Your task to perform on an android device: Search for vegetarian restaurants on Maps Image 0: 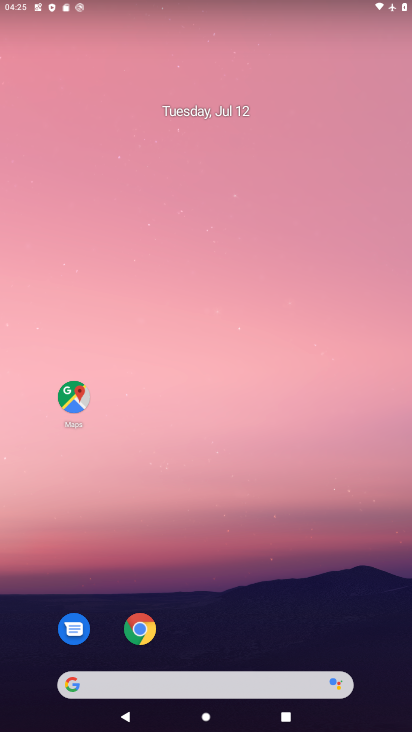
Step 0: drag from (306, 578) to (271, 41)
Your task to perform on an android device: Search for vegetarian restaurants on Maps Image 1: 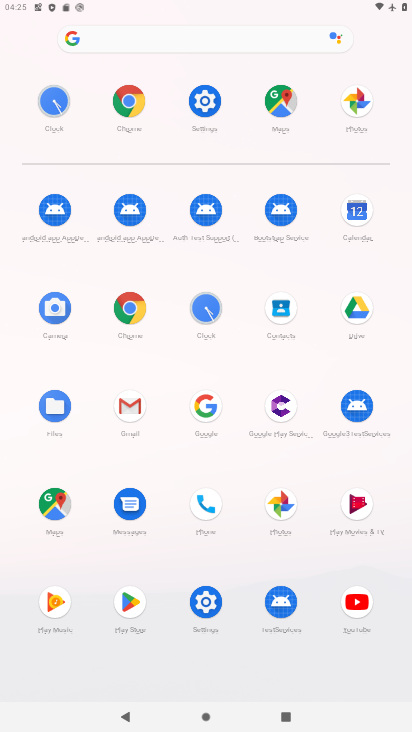
Step 1: click (57, 496)
Your task to perform on an android device: Search for vegetarian restaurants on Maps Image 2: 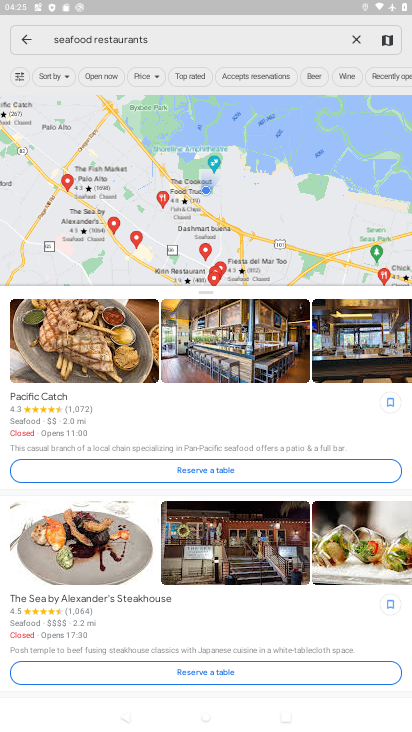
Step 2: task complete